Your task to perform on an android device: Open Yahoo.com Image 0: 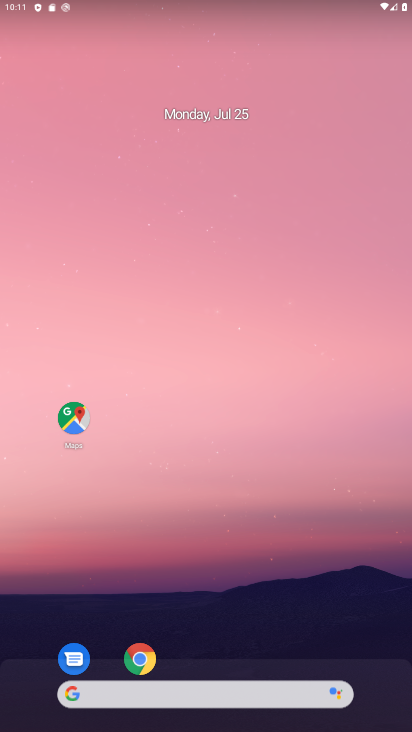
Step 0: click (141, 660)
Your task to perform on an android device: Open Yahoo.com Image 1: 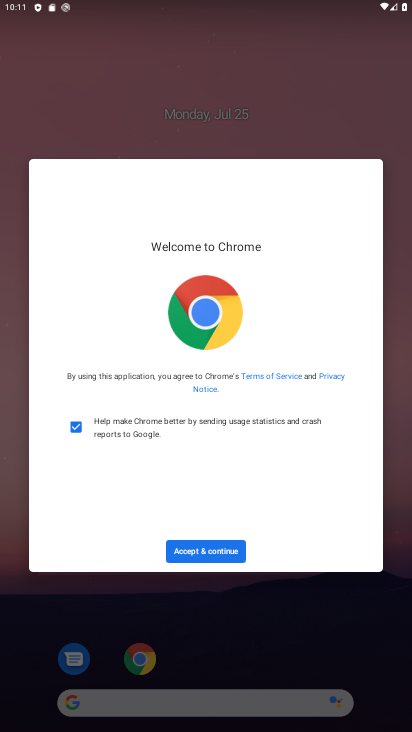
Step 1: click (226, 555)
Your task to perform on an android device: Open Yahoo.com Image 2: 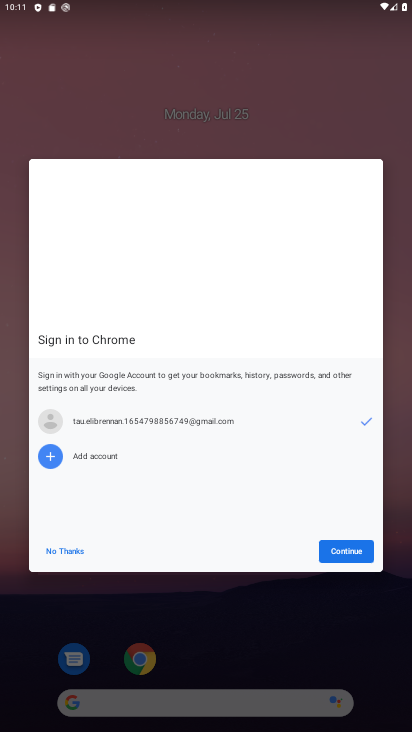
Step 2: click (339, 561)
Your task to perform on an android device: Open Yahoo.com Image 3: 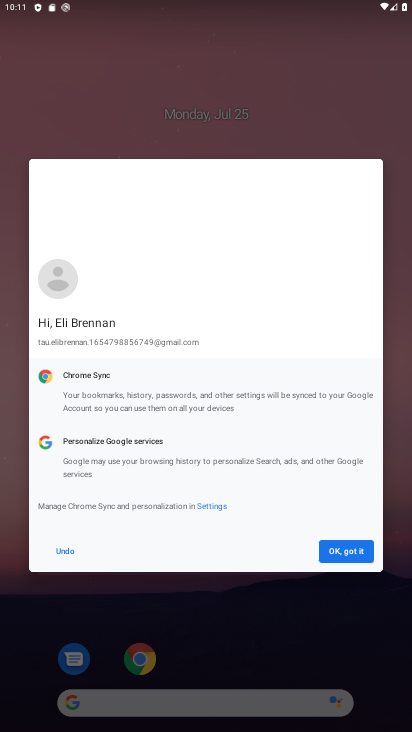
Step 3: click (343, 556)
Your task to perform on an android device: Open Yahoo.com Image 4: 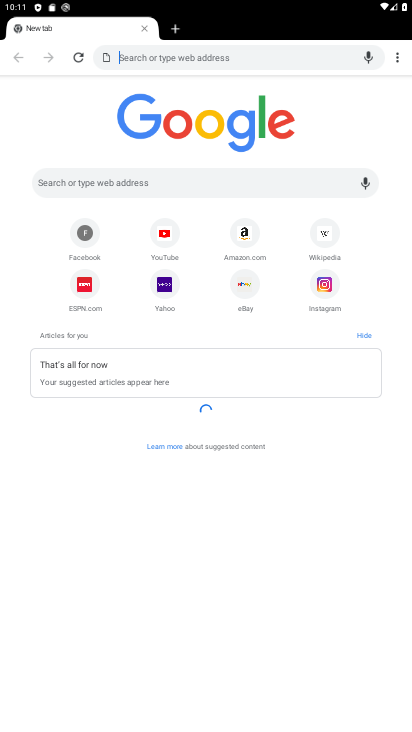
Step 4: click (170, 283)
Your task to perform on an android device: Open Yahoo.com Image 5: 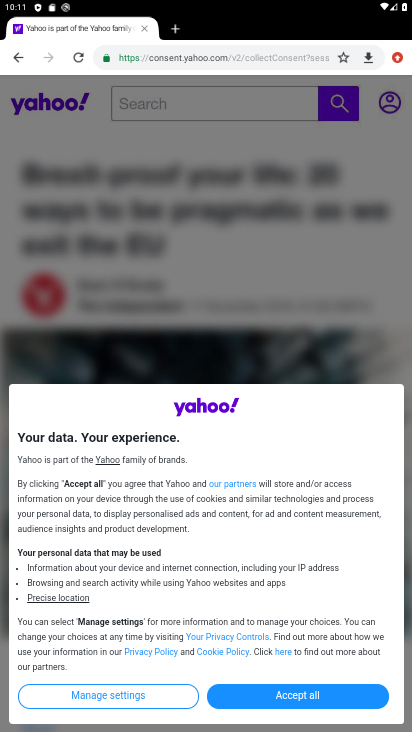
Step 5: task complete